Your task to perform on an android device: Open Google Maps and go to "Timeline" Image 0: 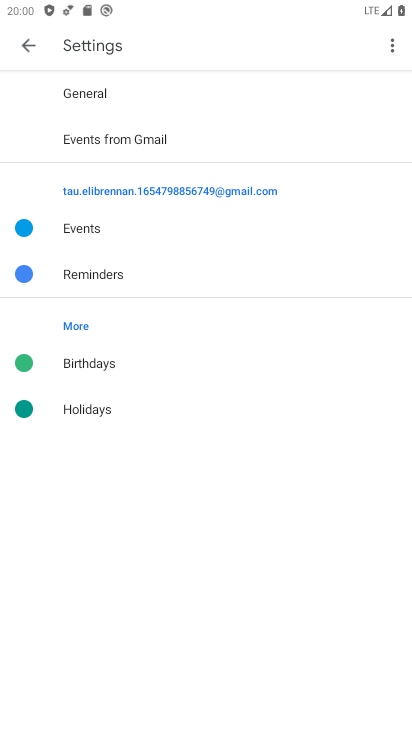
Step 0: press home button
Your task to perform on an android device: Open Google Maps and go to "Timeline" Image 1: 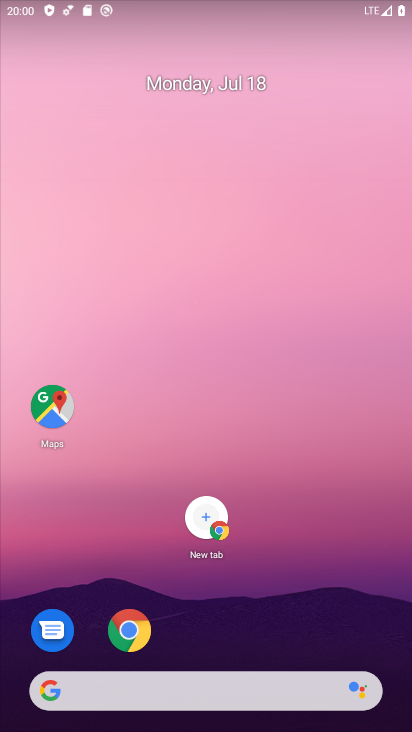
Step 1: click (65, 393)
Your task to perform on an android device: Open Google Maps and go to "Timeline" Image 2: 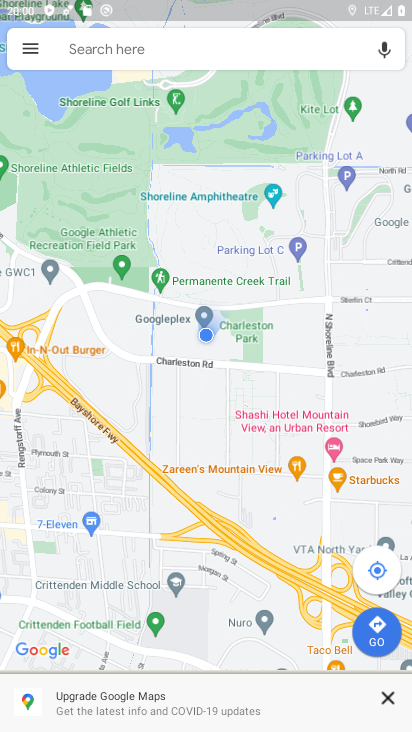
Step 2: click (35, 52)
Your task to perform on an android device: Open Google Maps and go to "Timeline" Image 3: 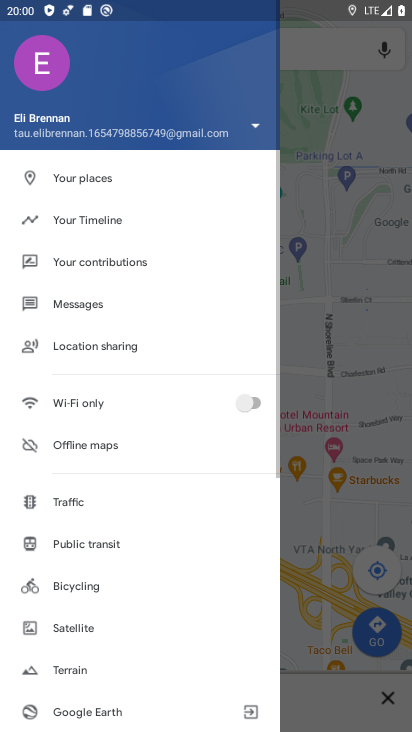
Step 3: click (56, 217)
Your task to perform on an android device: Open Google Maps and go to "Timeline" Image 4: 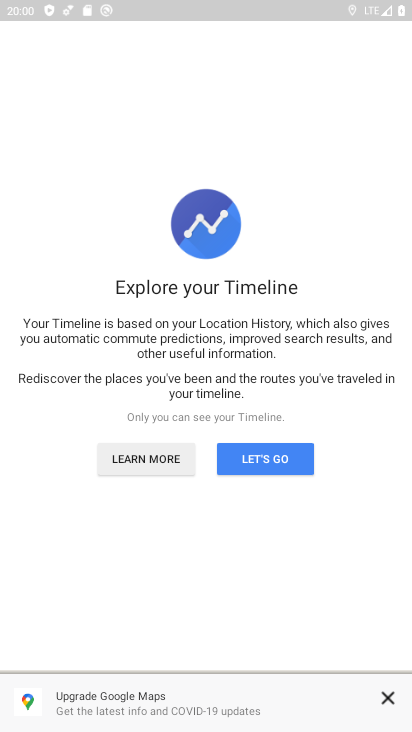
Step 4: click (241, 451)
Your task to perform on an android device: Open Google Maps and go to "Timeline" Image 5: 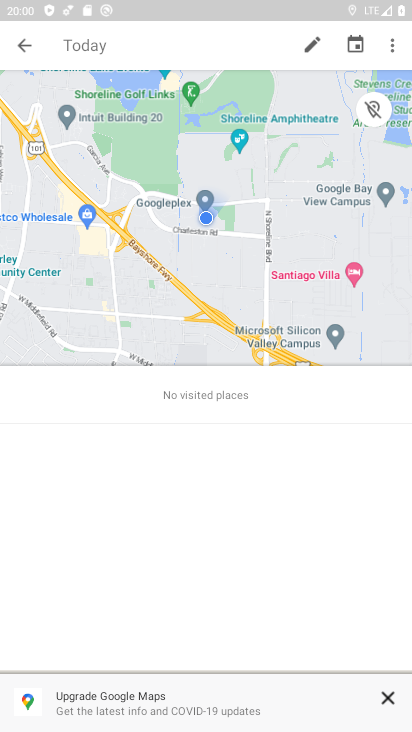
Step 5: task complete